Your task to perform on an android device: Go to battery settings Image 0: 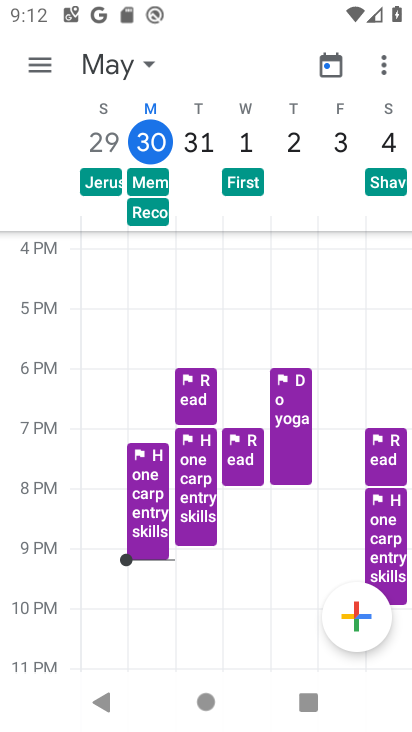
Step 0: press home button
Your task to perform on an android device: Go to battery settings Image 1: 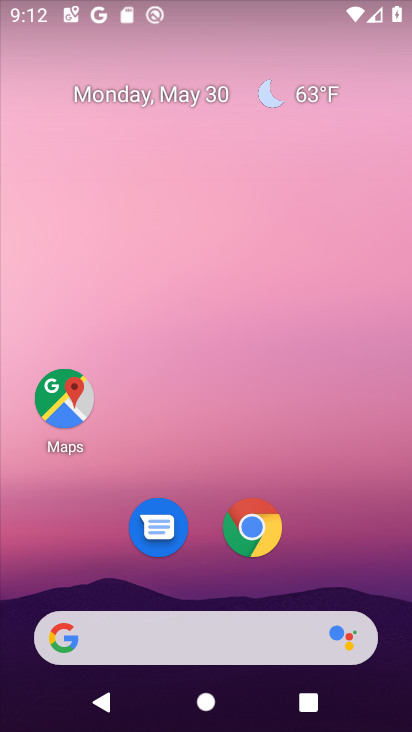
Step 1: drag from (327, 575) to (294, 219)
Your task to perform on an android device: Go to battery settings Image 2: 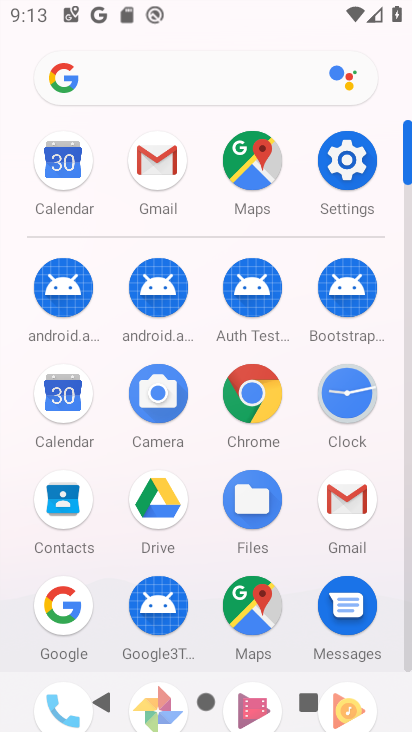
Step 2: click (360, 158)
Your task to perform on an android device: Go to battery settings Image 3: 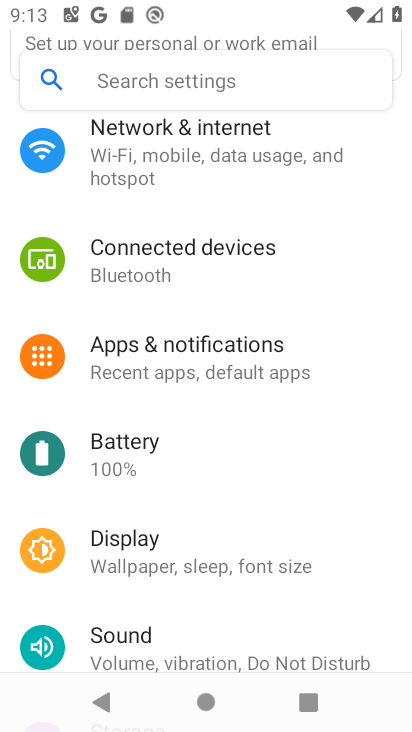
Step 3: click (164, 441)
Your task to perform on an android device: Go to battery settings Image 4: 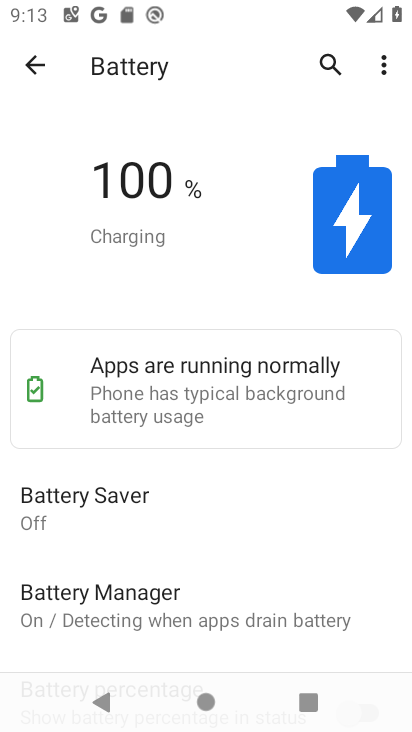
Step 4: task complete